Your task to perform on an android device: Find coffee shops on Maps Image 0: 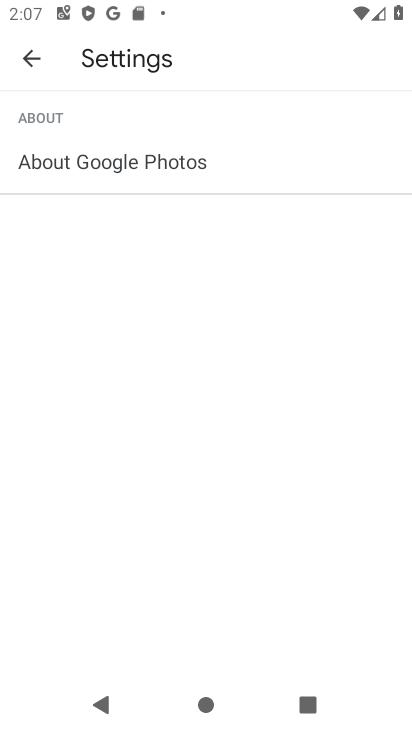
Step 0: press home button
Your task to perform on an android device: Find coffee shops on Maps Image 1: 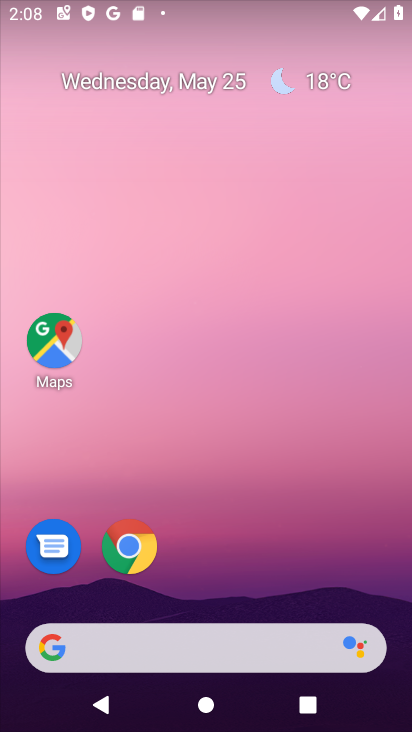
Step 1: click (55, 328)
Your task to perform on an android device: Find coffee shops on Maps Image 2: 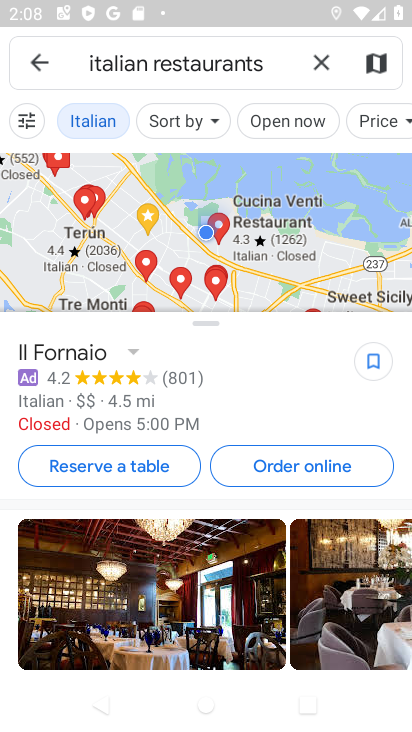
Step 2: click (311, 65)
Your task to perform on an android device: Find coffee shops on Maps Image 3: 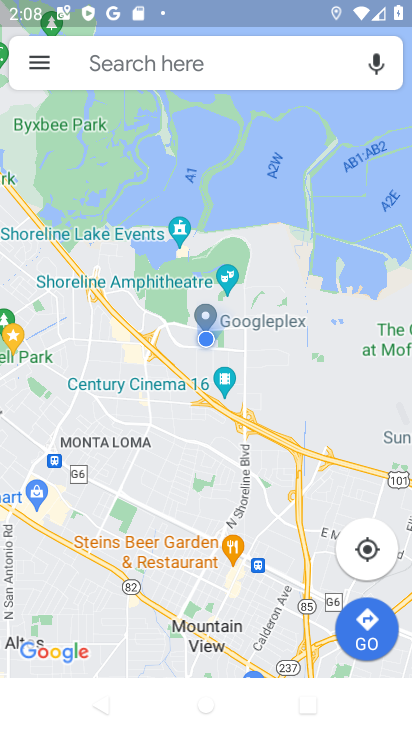
Step 3: click (244, 72)
Your task to perform on an android device: Find coffee shops on Maps Image 4: 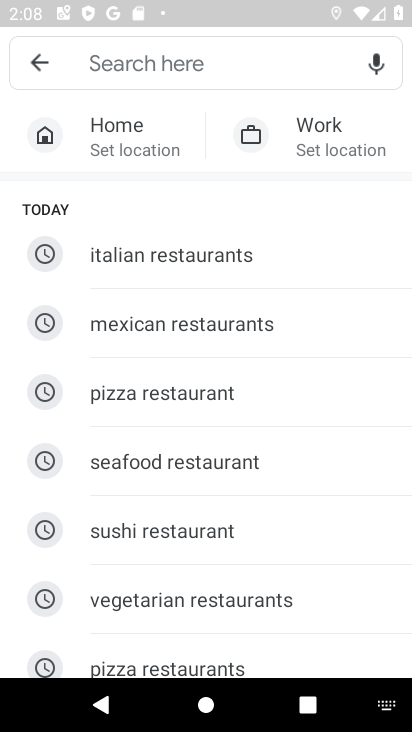
Step 4: type "coffee shops"
Your task to perform on an android device: Find coffee shops on Maps Image 5: 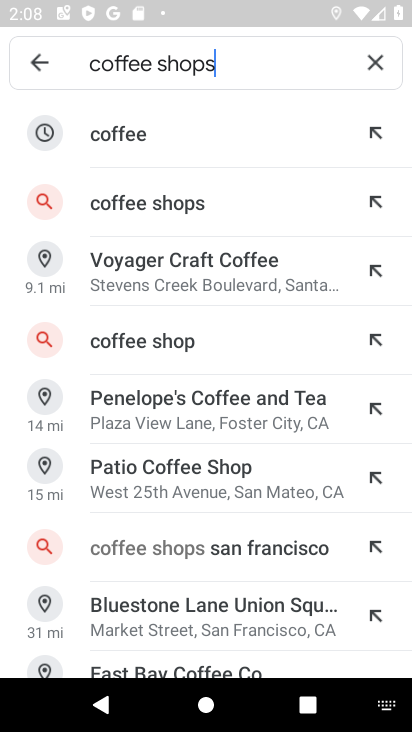
Step 5: click (188, 214)
Your task to perform on an android device: Find coffee shops on Maps Image 6: 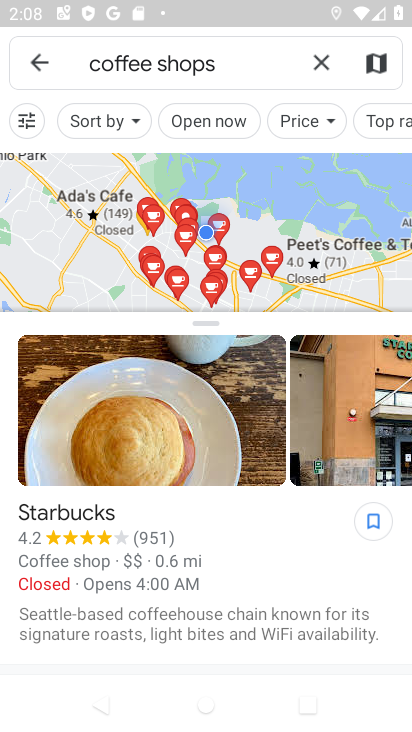
Step 6: task complete